Your task to perform on an android device: When is my next appointment? Image 0: 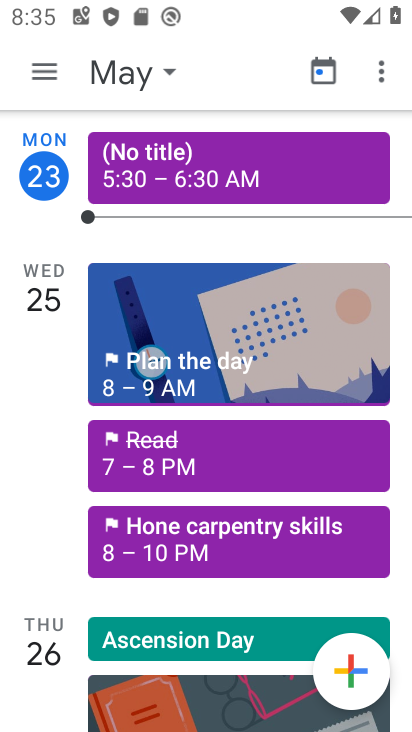
Step 0: press home button
Your task to perform on an android device: When is my next appointment? Image 1: 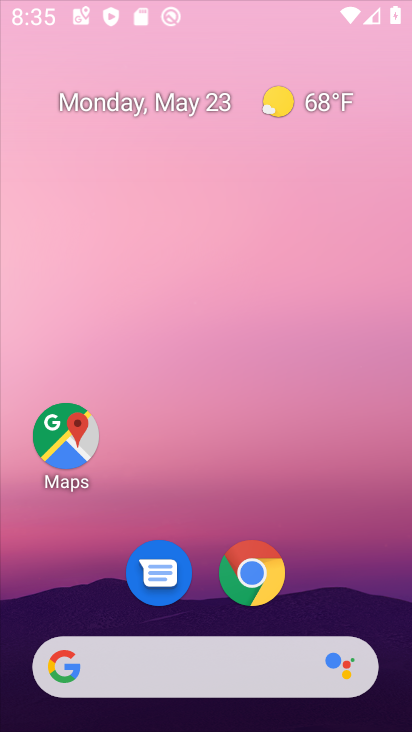
Step 1: drag from (200, 700) to (248, 198)
Your task to perform on an android device: When is my next appointment? Image 2: 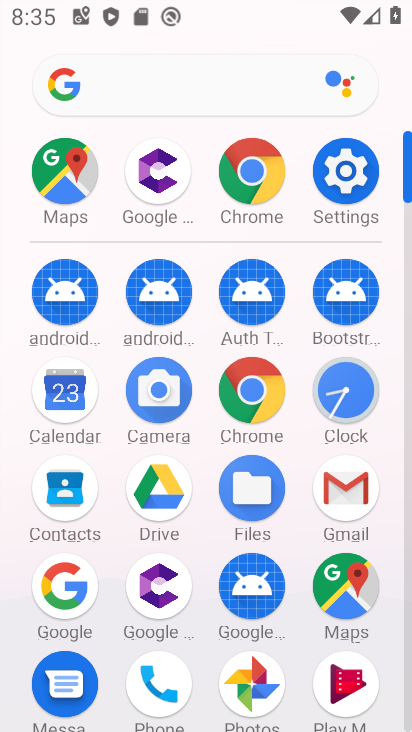
Step 2: click (76, 402)
Your task to perform on an android device: When is my next appointment? Image 3: 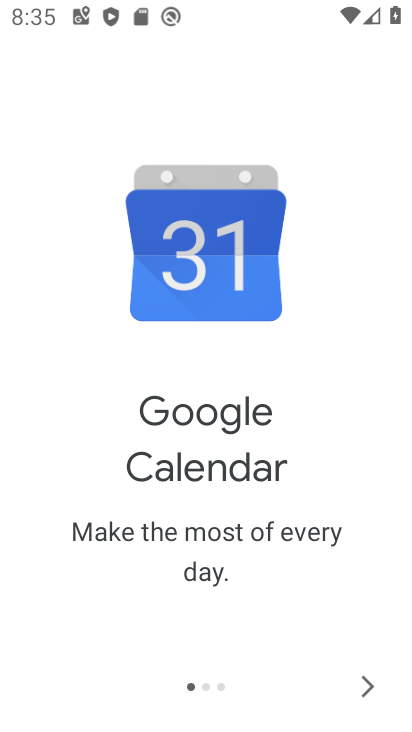
Step 3: click (367, 691)
Your task to perform on an android device: When is my next appointment? Image 4: 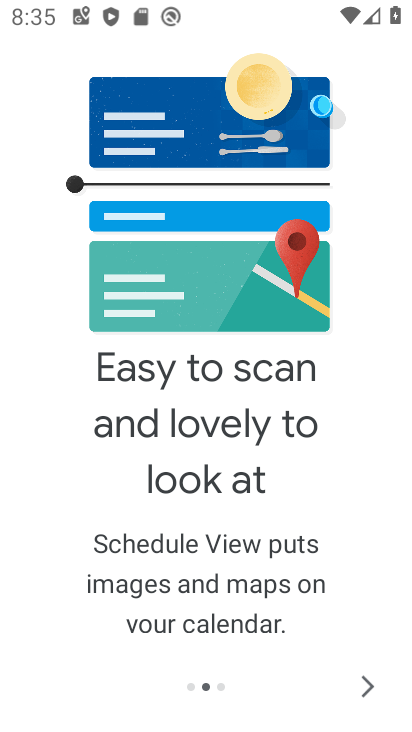
Step 4: click (367, 691)
Your task to perform on an android device: When is my next appointment? Image 5: 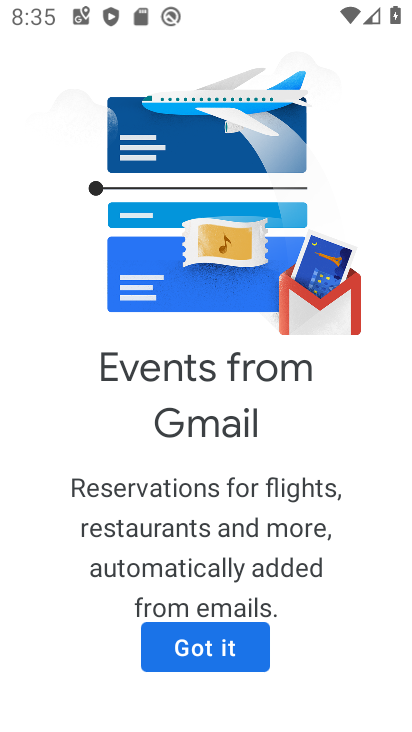
Step 5: click (243, 653)
Your task to perform on an android device: When is my next appointment? Image 6: 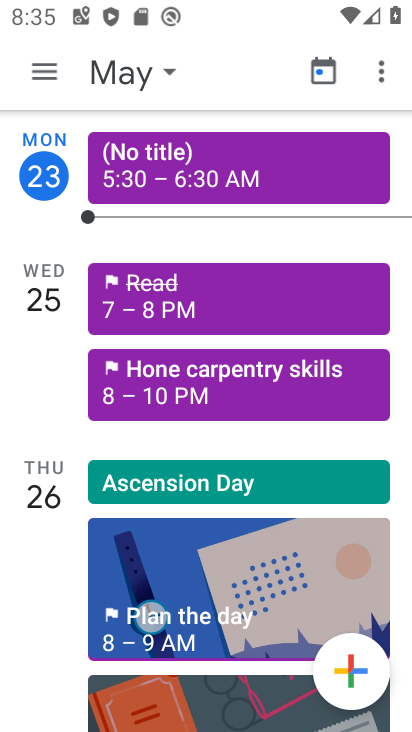
Step 6: click (141, 79)
Your task to perform on an android device: When is my next appointment? Image 7: 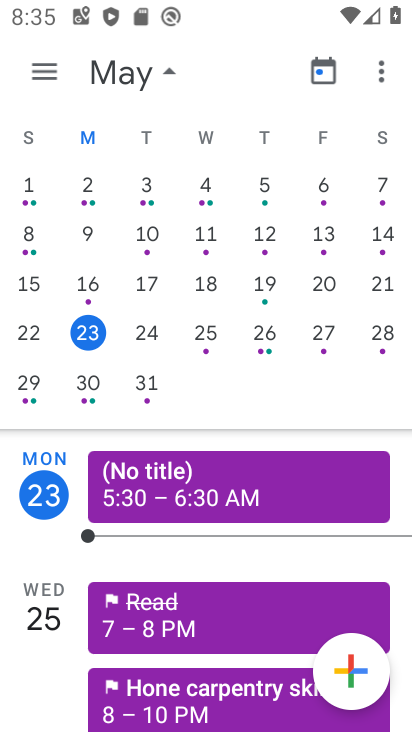
Step 7: click (43, 80)
Your task to perform on an android device: When is my next appointment? Image 8: 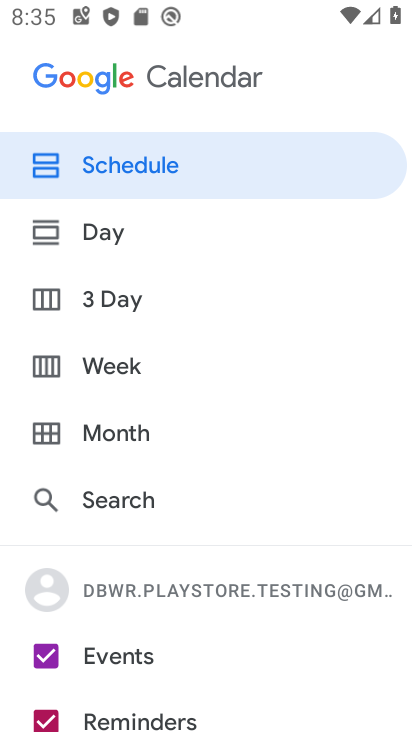
Step 8: drag from (137, 509) to (202, 177)
Your task to perform on an android device: When is my next appointment? Image 9: 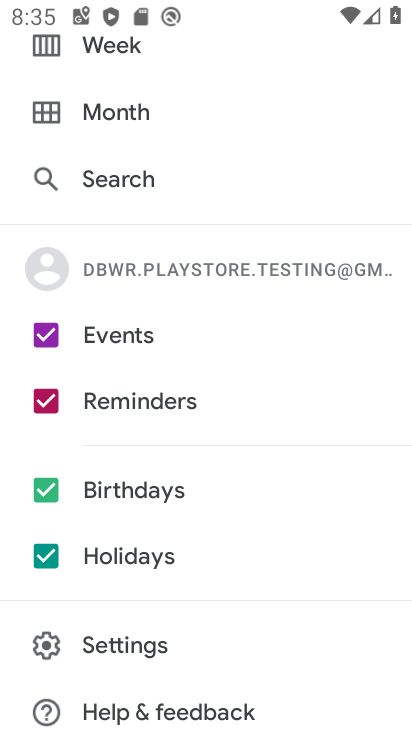
Step 9: click (35, 501)
Your task to perform on an android device: When is my next appointment? Image 10: 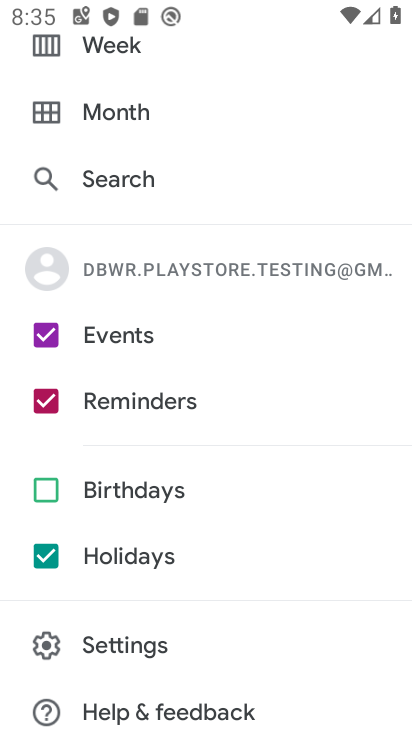
Step 10: click (42, 553)
Your task to perform on an android device: When is my next appointment? Image 11: 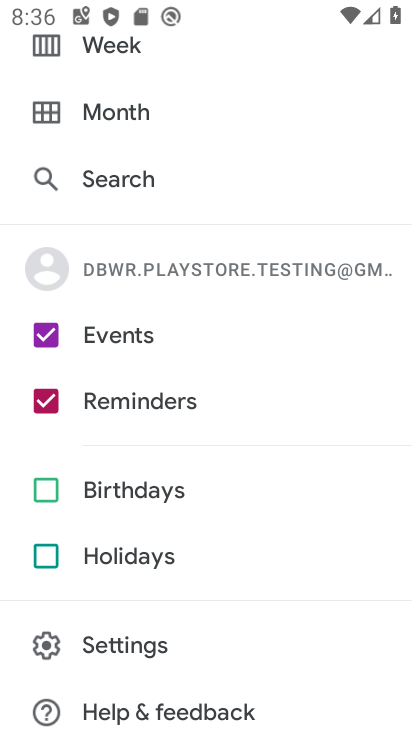
Step 11: task complete